Your task to perform on an android device: Open calendar and show me the second week of next month Image 0: 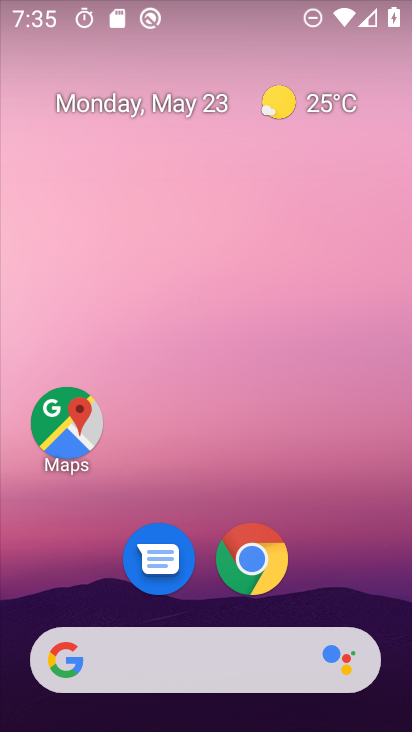
Step 0: drag from (402, 649) to (283, 65)
Your task to perform on an android device: Open calendar and show me the second week of next month Image 1: 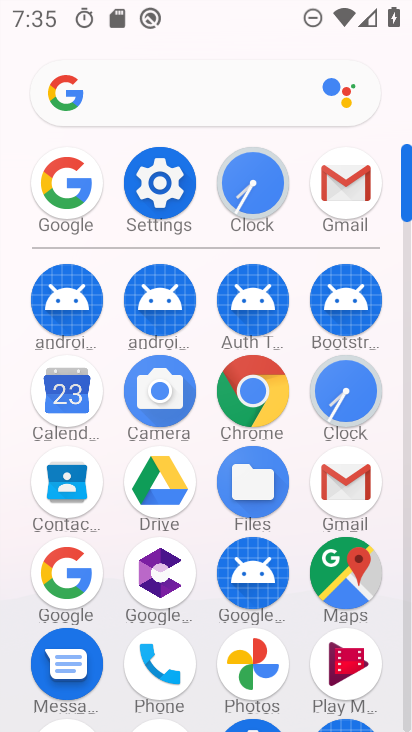
Step 1: click (81, 392)
Your task to perform on an android device: Open calendar and show me the second week of next month Image 2: 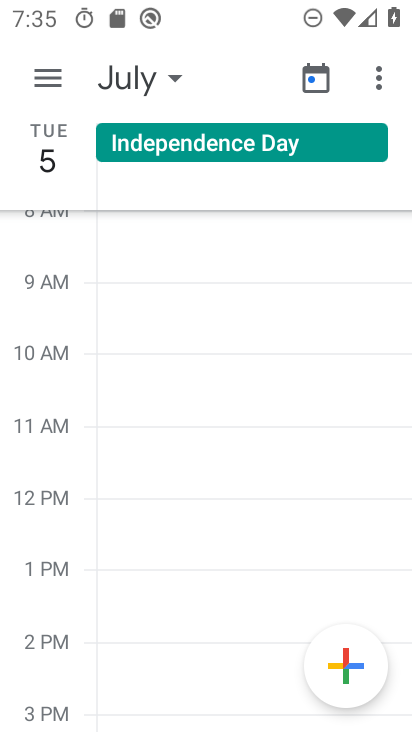
Step 2: click (132, 68)
Your task to perform on an android device: Open calendar and show me the second week of next month Image 3: 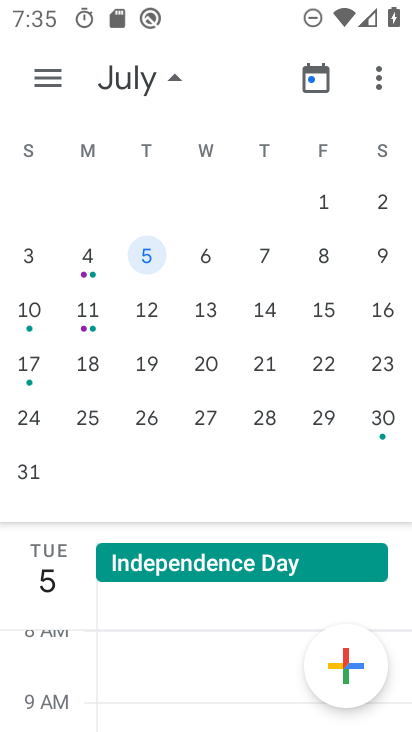
Step 3: drag from (355, 335) to (35, 311)
Your task to perform on an android device: Open calendar and show me the second week of next month Image 4: 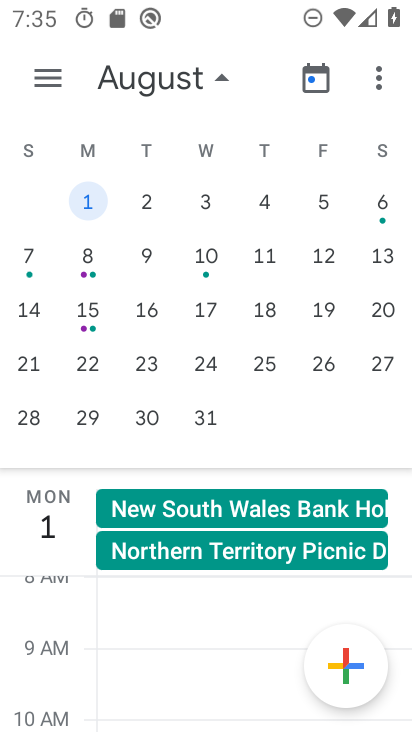
Step 4: click (95, 321)
Your task to perform on an android device: Open calendar and show me the second week of next month Image 5: 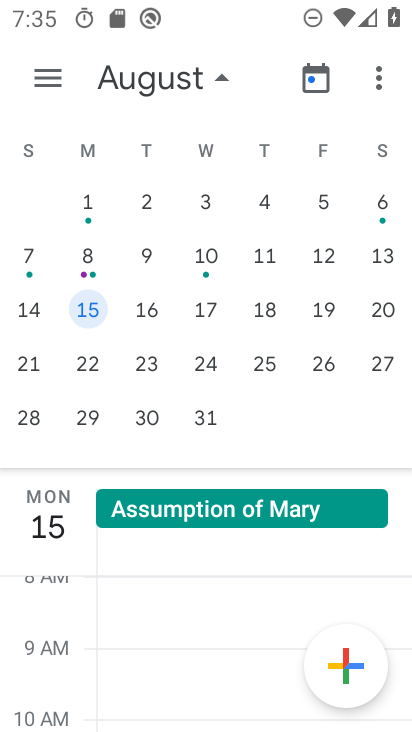
Step 5: task complete